Your task to perform on an android device: turn notification dots off Image 0: 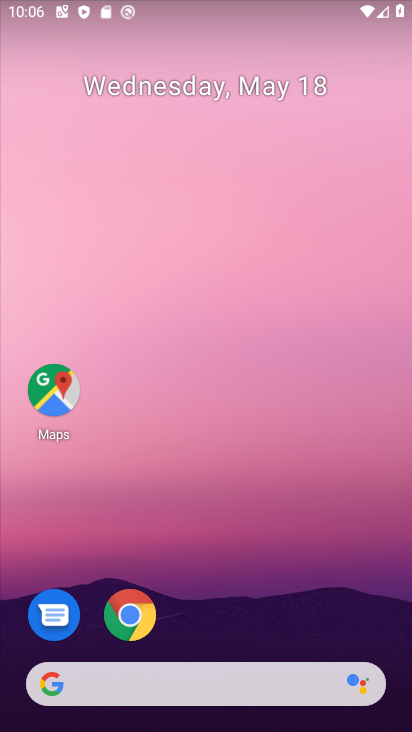
Step 0: drag from (208, 660) to (226, 8)
Your task to perform on an android device: turn notification dots off Image 1: 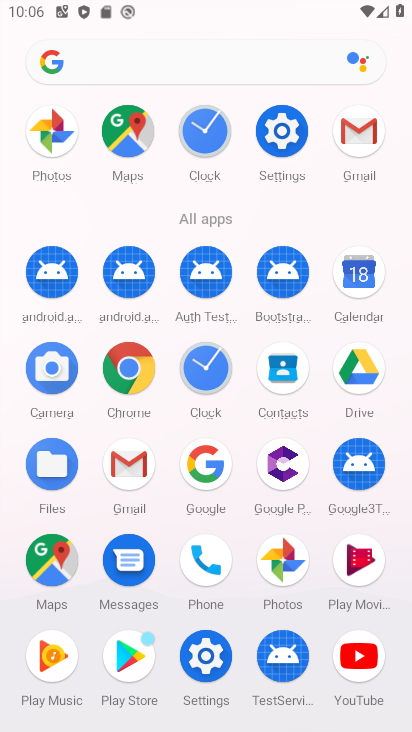
Step 1: click (301, 134)
Your task to perform on an android device: turn notification dots off Image 2: 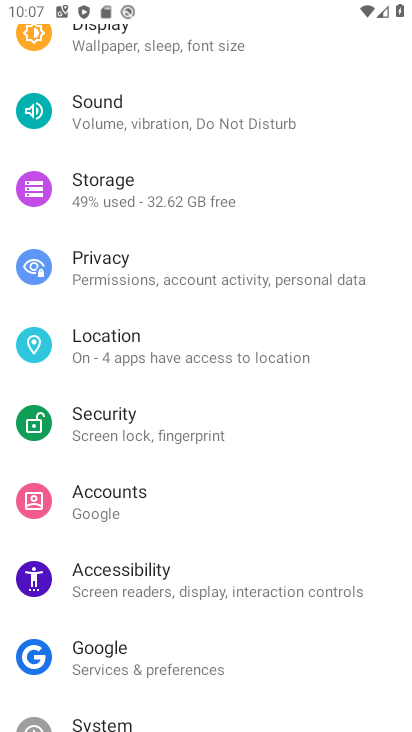
Step 2: drag from (171, 199) to (258, 558)
Your task to perform on an android device: turn notification dots off Image 3: 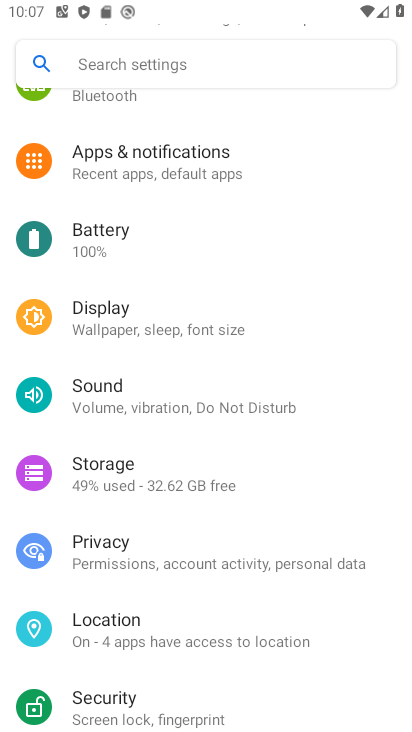
Step 3: click (138, 169)
Your task to perform on an android device: turn notification dots off Image 4: 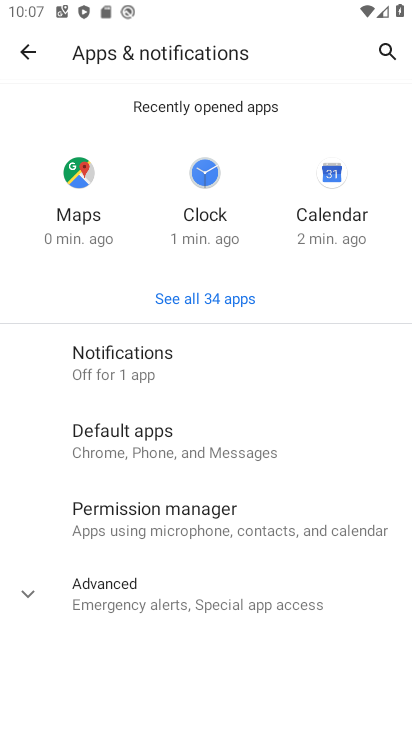
Step 4: click (128, 606)
Your task to perform on an android device: turn notification dots off Image 5: 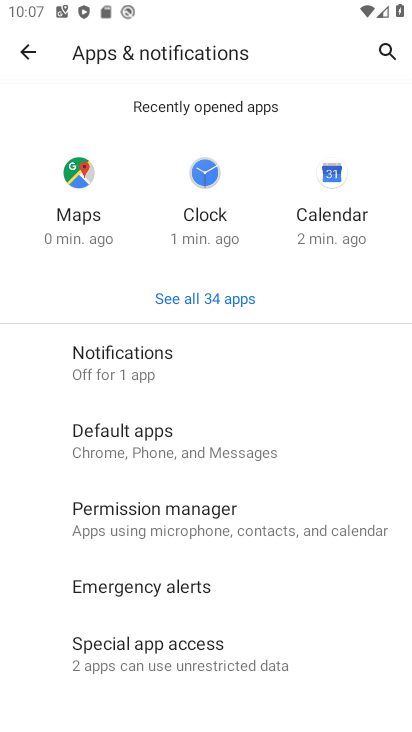
Step 5: click (179, 376)
Your task to perform on an android device: turn notification dots off Image 6: 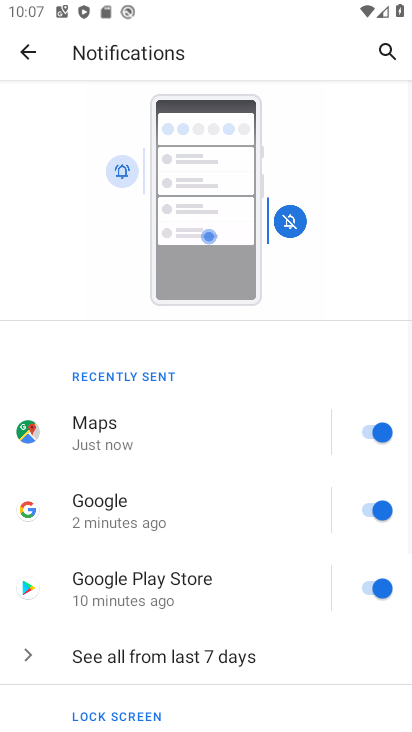
Step 6: drag from (147, 633) to (221, 101)
Your task to perform on an android device: turn notification dots off Image 7: 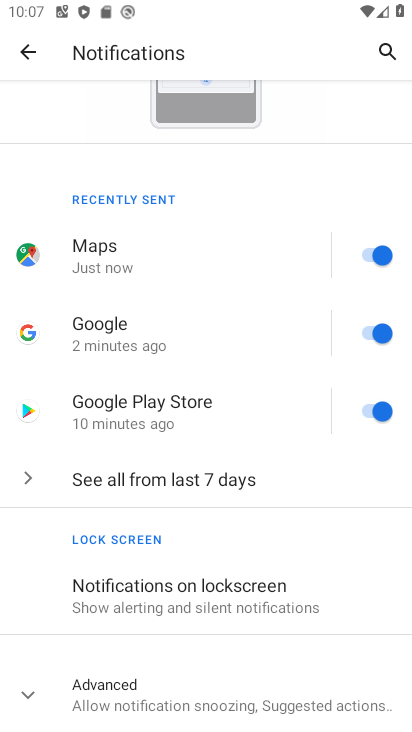
Step 7: click (179, 688)
Your task to perform on an android device: turn notification dots off Image 8: 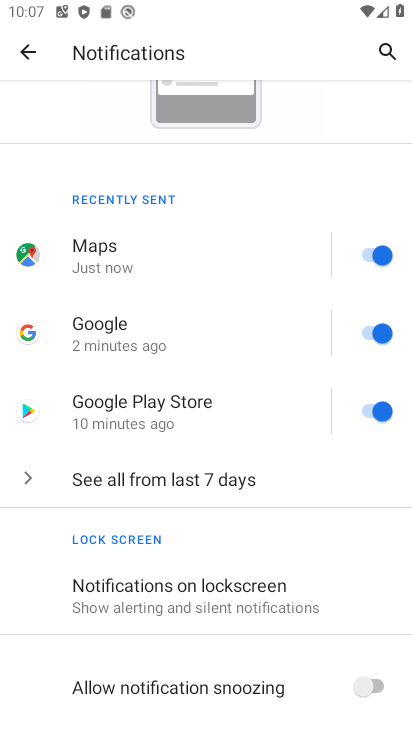
Step 8: drag from (198, 654) to (364, 40)
Your task to perform on an android device: turn notification dots off Image 9: 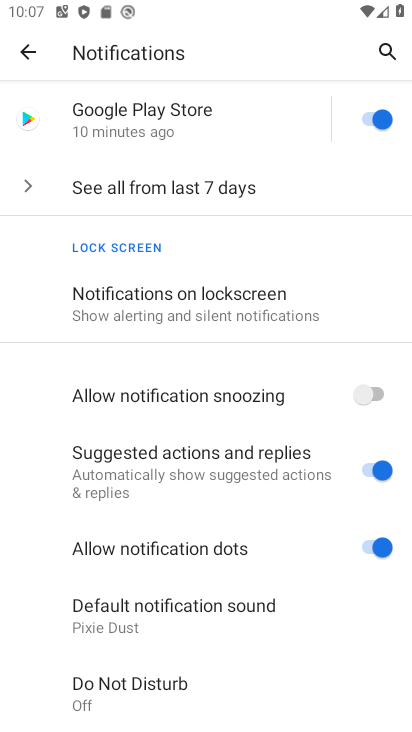
Step 9: click (380, 545)
Your task to perform on an android device: turn notification dots off Image 10: 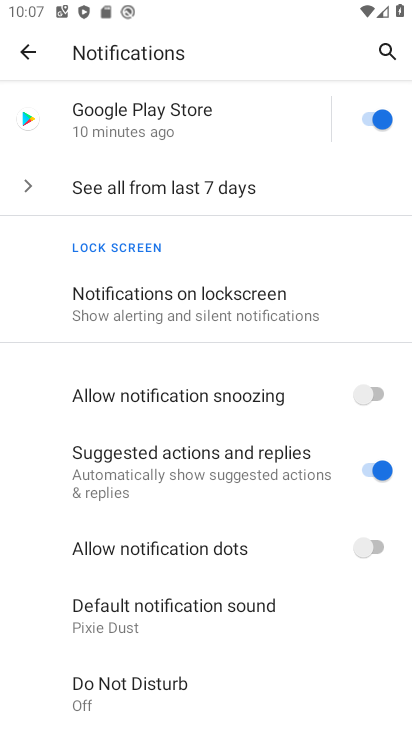
Step 10: task complete